Your task to perform on an android device: Open the calendar app, open the side menu, and click the "Day" option Image 0: 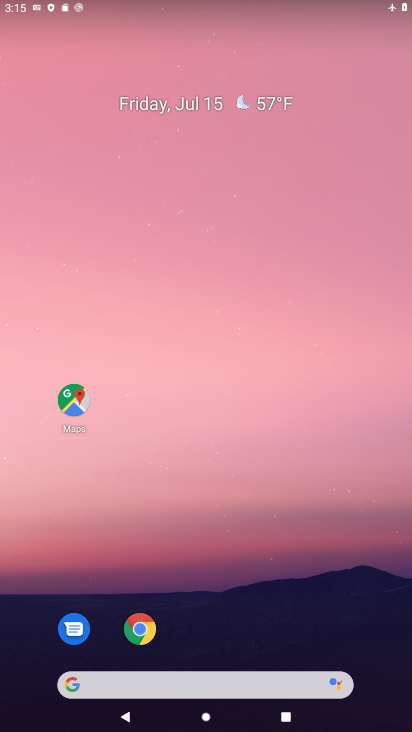
Step 0: drag from (230, 617) to (230, 221)
Your task to perform on an android device: Open the calendar app, open the side menu, and click the "Day" option Image 1: 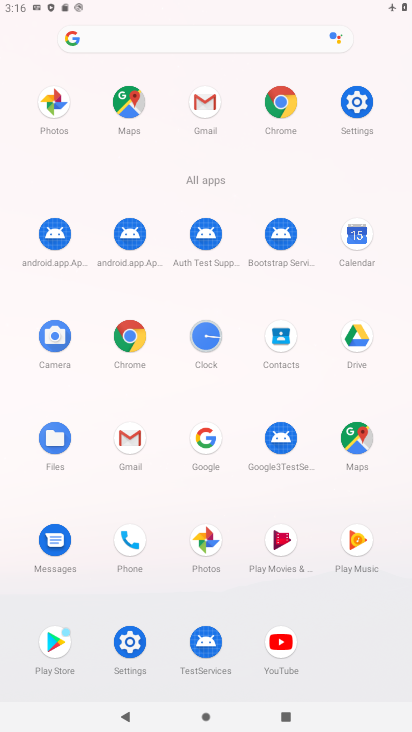
Step 1: click (361, 236)
Your task to perform on an android device: Open the calendar app, open the side menu, and click the "Day" option Image 2: 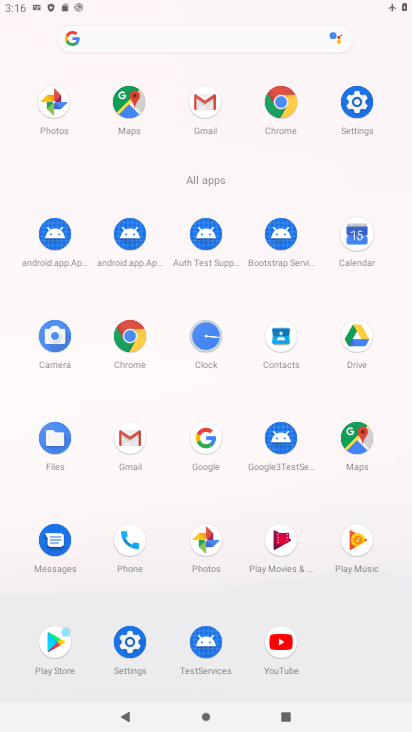
Step 2: click (361, 236)
Your task to perform on an android device: Open the calendar app, open the side menu, and click the "Day" option Image 3: 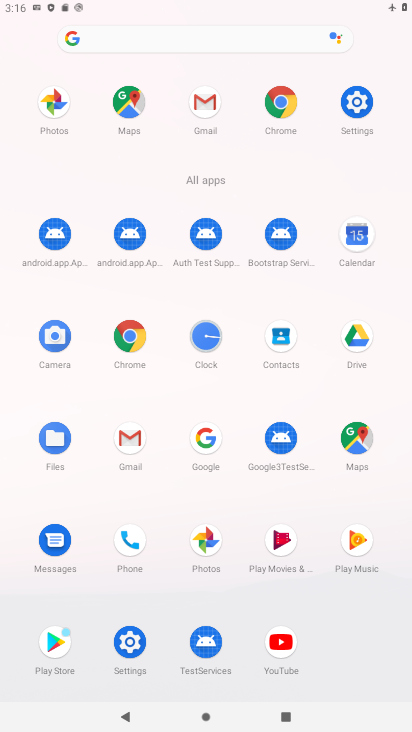
Step 3: click (360, 237)
Your task to perform on an android device: Open the calendar app, open the side menu, and click the "Day" option Image 4: 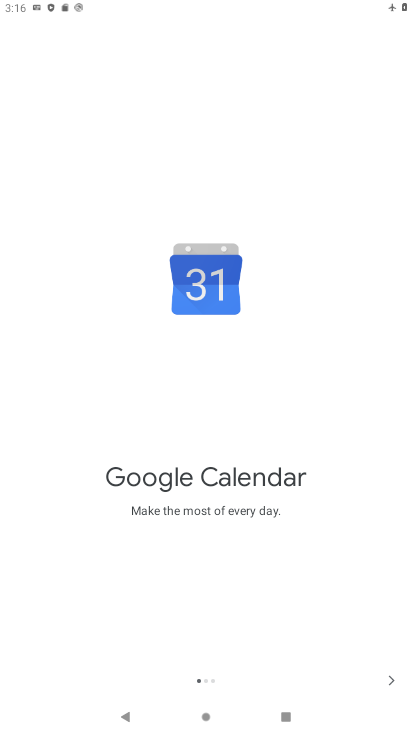
Step 4: click (386, 685)
Your task to perform on an android device: Open the calendar app, open the side menu, and click the "Day" option Image 5: 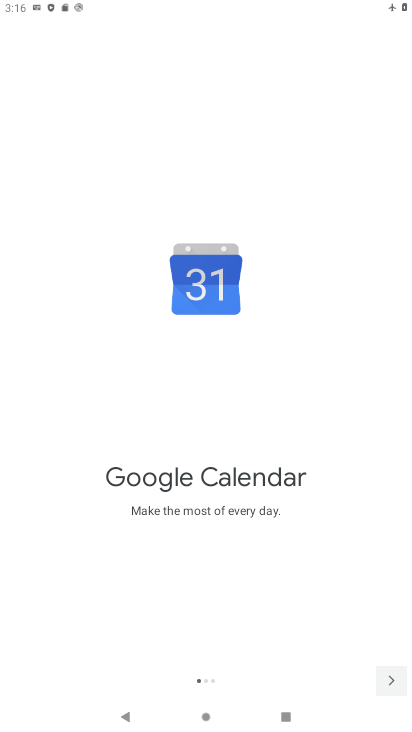
Step 5: click (387, 684)
Your task to perform on an android device: Open the calendar app, open the side menu, and click the "Day" option Image 6: 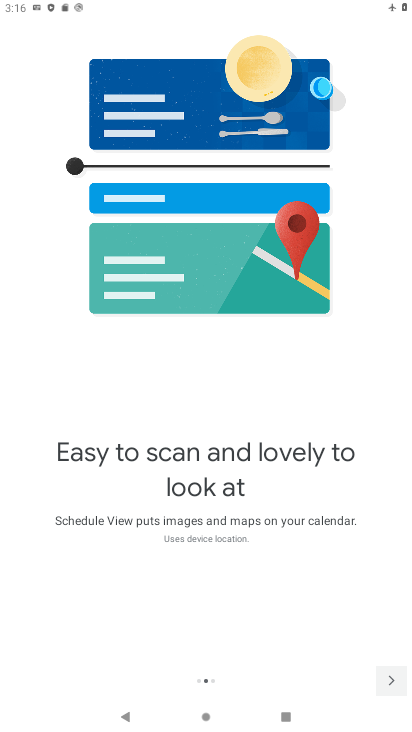
Step 6: click (389, 680)
Your task to perform on an android device: Open the calendar app, open the side menu, and click the "Day" option Image 7: 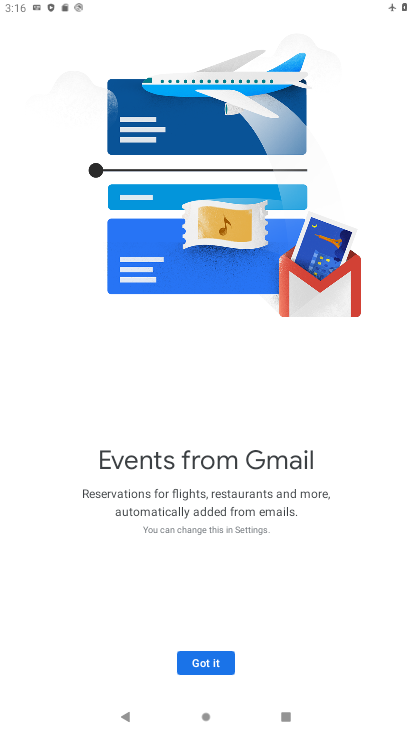
Step 7: click (209, 643)
Your task to perform on an android device: Open the calendar app, open the side menu, and click the "Day" option Image 8: 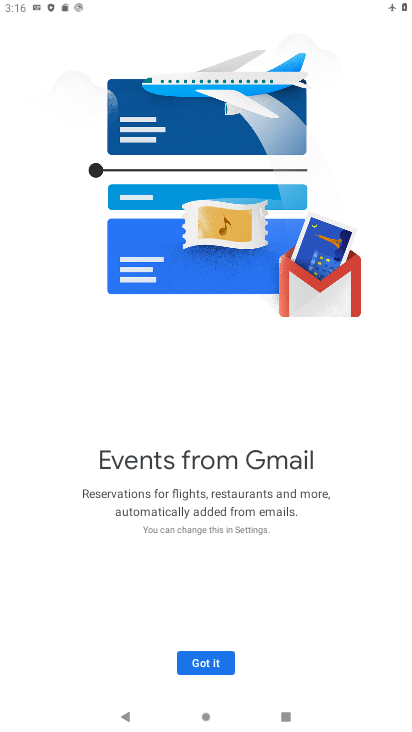
Step 8: click (200, 663)
Your task to perform on an android device: Open the calendar app, open the side menu, and click the "Day" option Image 9: 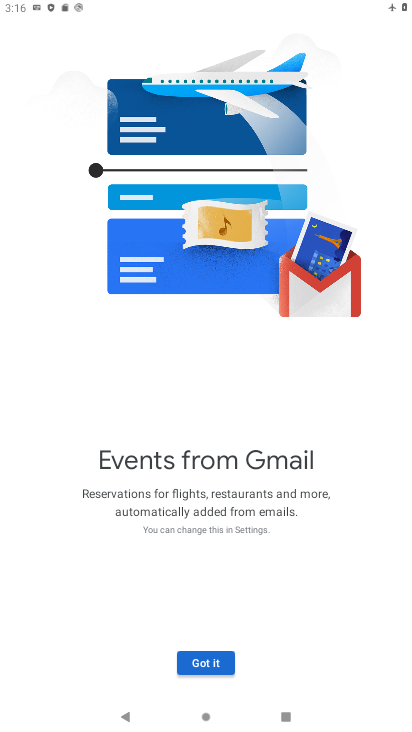
Step 9: click (202, 661)
Your task to perform on an android device: Open the calendar app, open the side menu, and click the "Day" option Image 10: 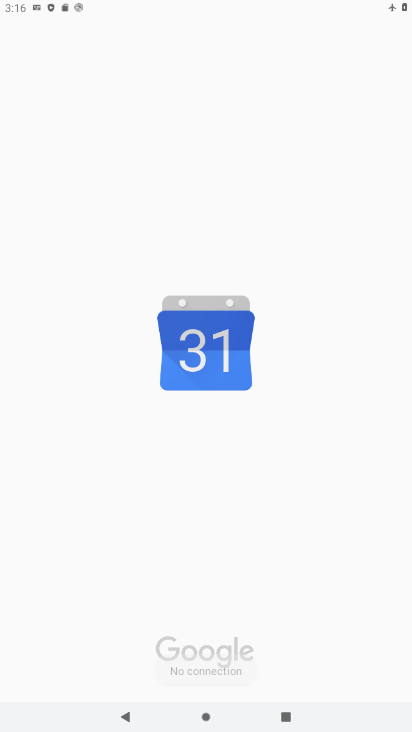
Step 10: click (202, 661)
Your task to perform on an android device: Open the calendar app, open the side menu, and click the "Day" option Image 11: 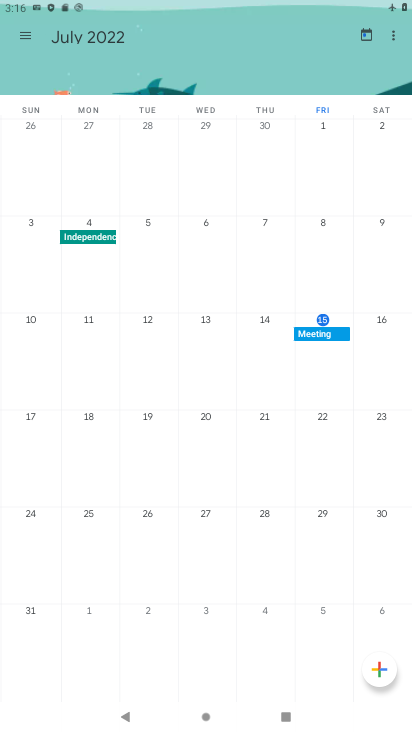
Step 11: click (32, 34)
Your task to perform on an android device: Open the calendar app, open the side menu, and click the "Day" option Image 12: 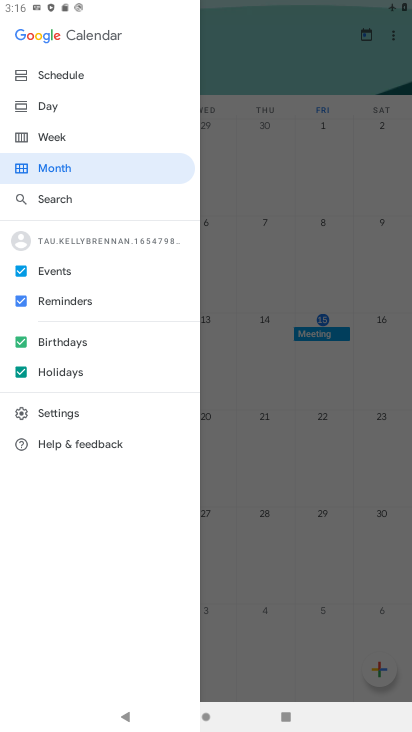
Step 12: click (48, 97)
Your task to perform on an android device: Open the calendar app, open the side menu, and click the "Day" option Image 13: 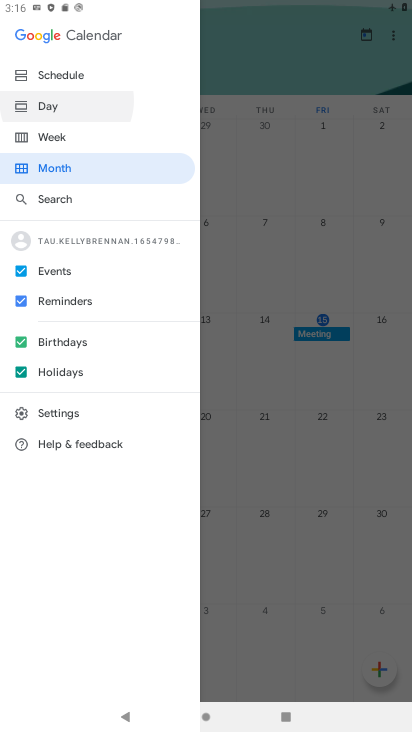
Step 13: click (48, 98)
Your task to perform on an android device: Open the calendar app, open the side menu, and click the "Day" option Image 14: 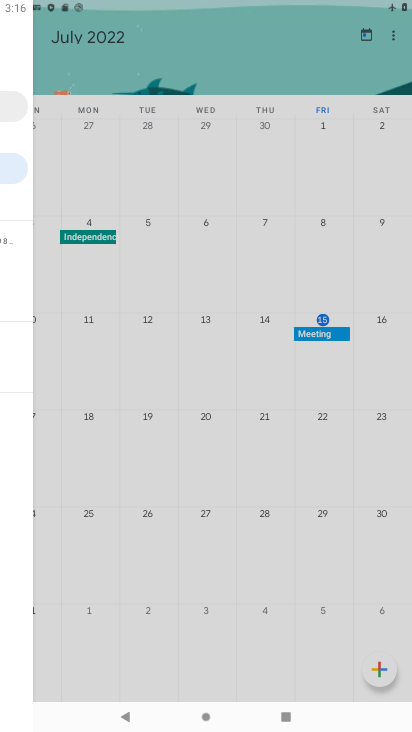
Step 14: click (48, 98)
Your task to perform on an android device: Open the calendar app, open the side menu, and click the "Day" option Image 15: 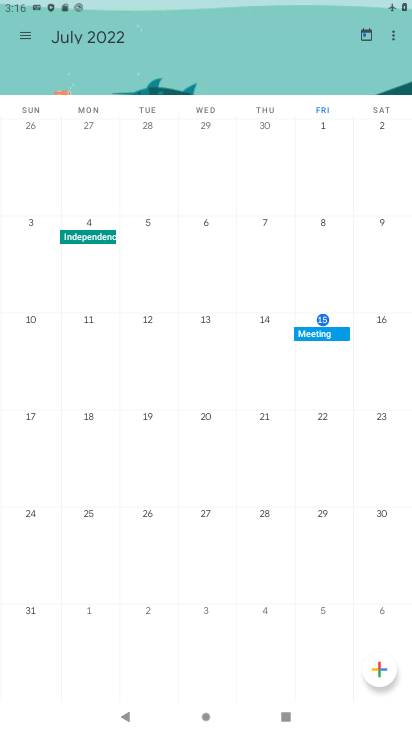
Step 15: click (49, 97)
Your task to perform on an android device: Open the calendar app, open the side menu, and click the "Day" option Image 16: 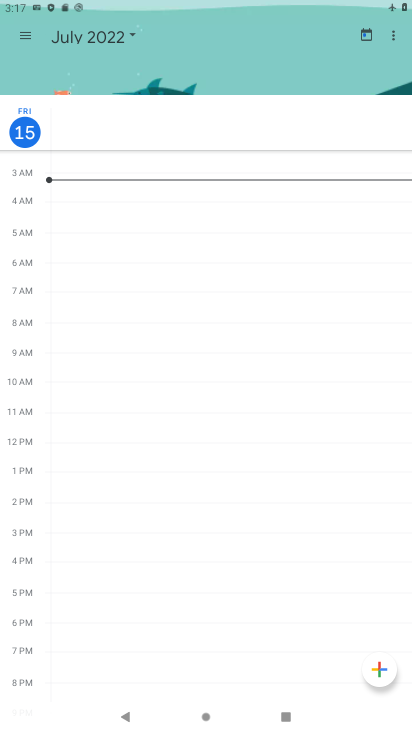
Step 16: click (28, 28)
Your task to perform on an android device: Open the calendar app, open the side menu, and click the "Day" option Image 17: 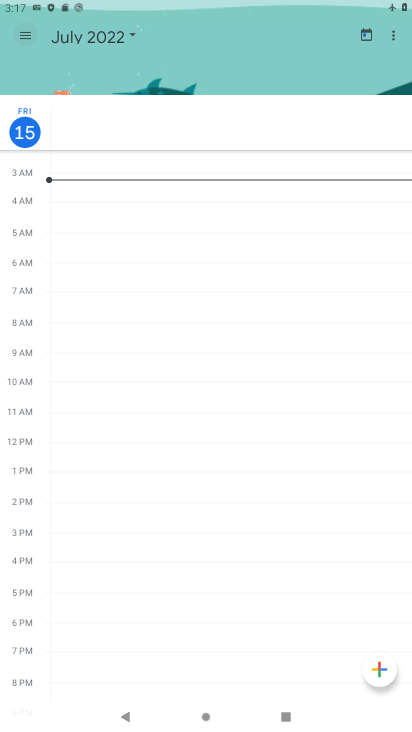
Step 17: click (27, 29)
Your task to perform on an android device: Open the calendar app, open the side menu, and click the "Day" option Image 18: 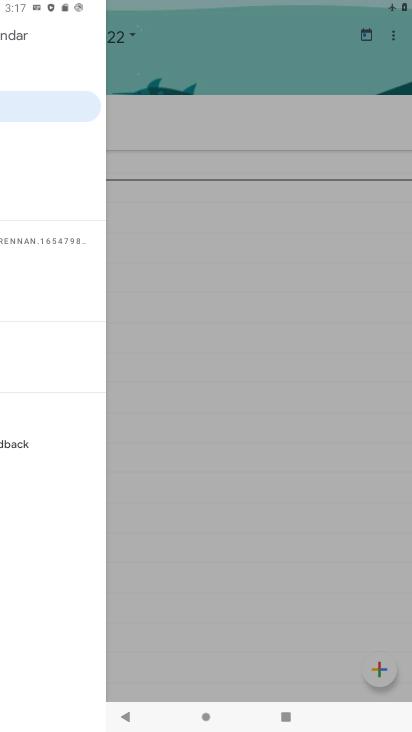
Step 18: click (27, 29)
Your task to perform on an android device: Open the calendar app, open the side menu, and click the "Day" option Image 19: 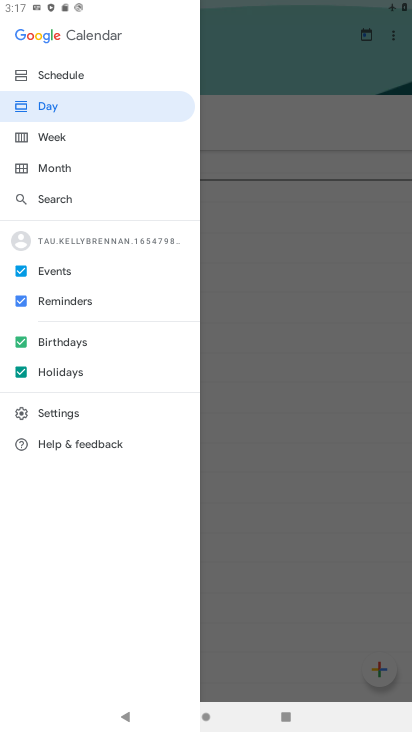
Step 19: click (41, 108)
Your task to perform on an android device: Open the calendar app, open the side menu, and click the "Day" option Image 20: 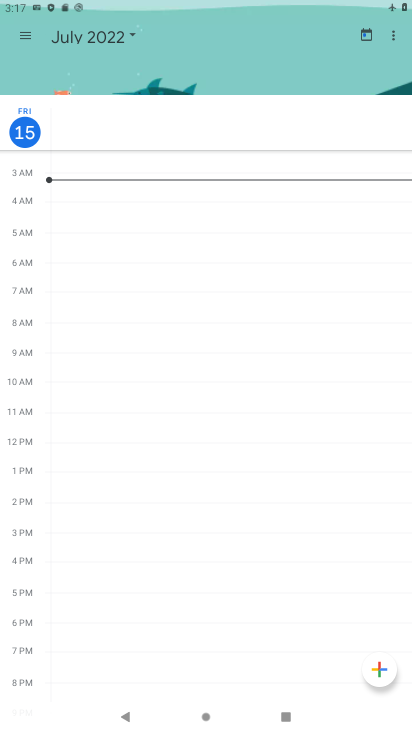
Step 20: task complete